Your task to perform on an android device: Open Yahoo.com Image 0: 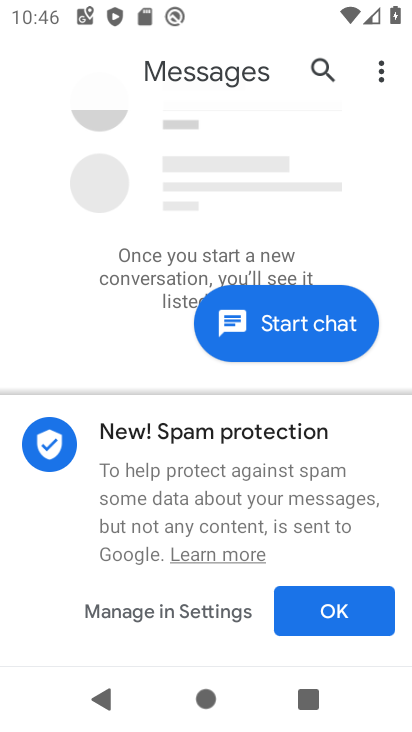
Step 0: press home button
Your task to perform on an android device: Open Yahoo.com Image 1: 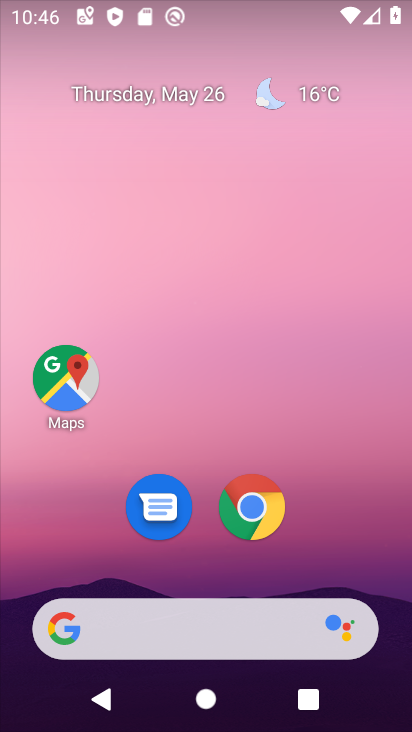
Step 1: click (258, 504)
Your task to perform on an android device: Open Yahoo.com Image 2: 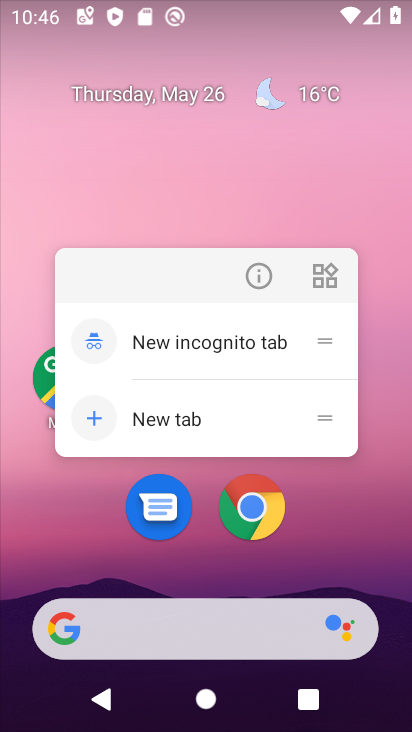
Step 2: click (256, 500)
Your task to perform on an android device: Open Yahoo.com Image 3: 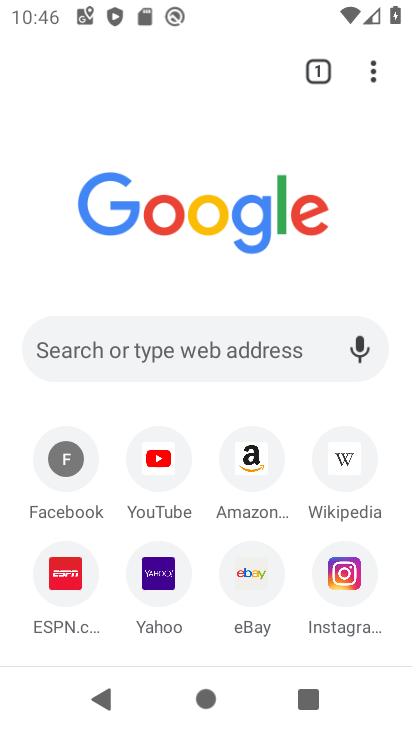
Step 3: drag from (220, 640) to (208, 207)
Your task to perform on an android device: Open Yahoo.com Image 4: 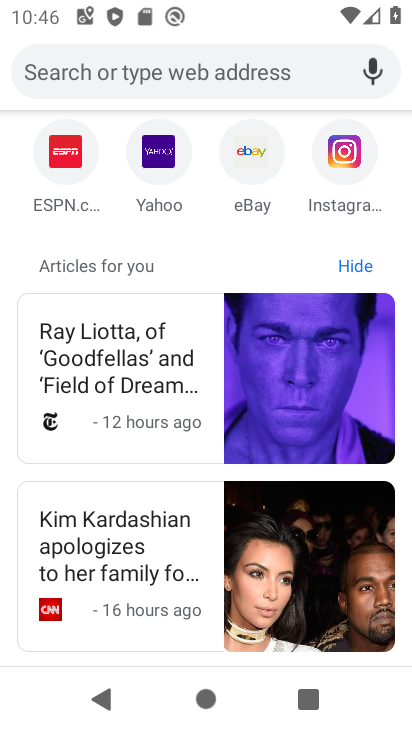
Step 4: click (165, 163)
Your task to perform on an android device: Open Yahoo.com Image 5: 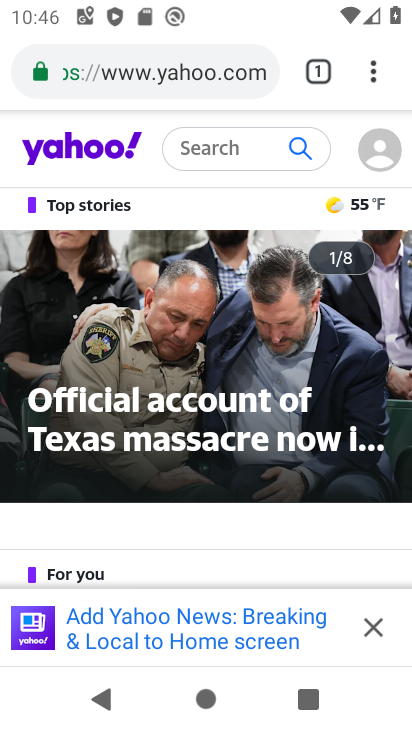
Step 5: task complete